Your task to perform on an android device: turn off location history Image 0: 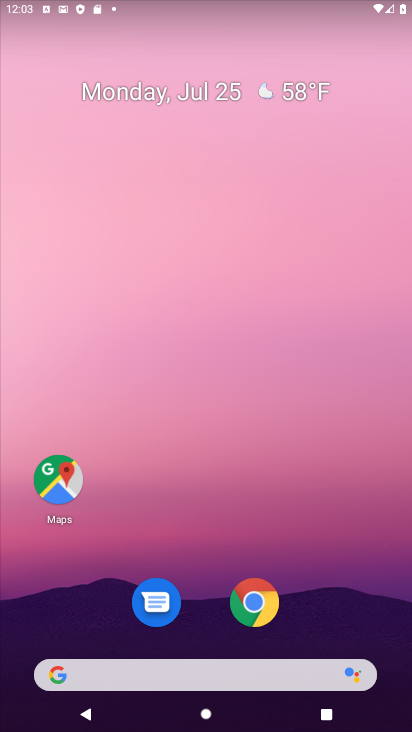
Step 0: drag from (186, 588) to (179, 200)
Your task to perform on an android device: turn off location history Image 1: 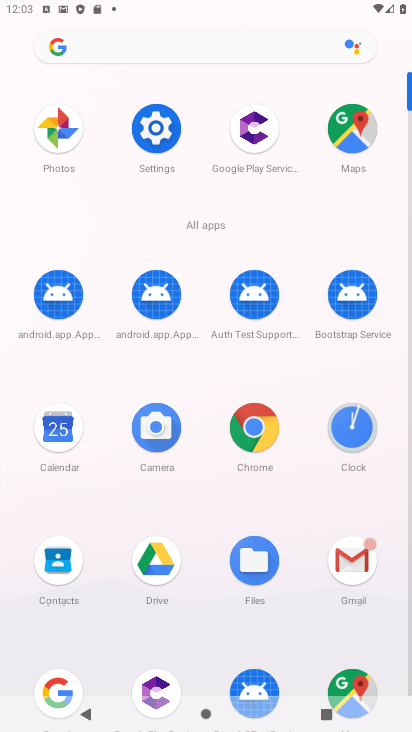
Step 1: click (170, 150)
Your task to perform on an android device: turn off location history Image 2: 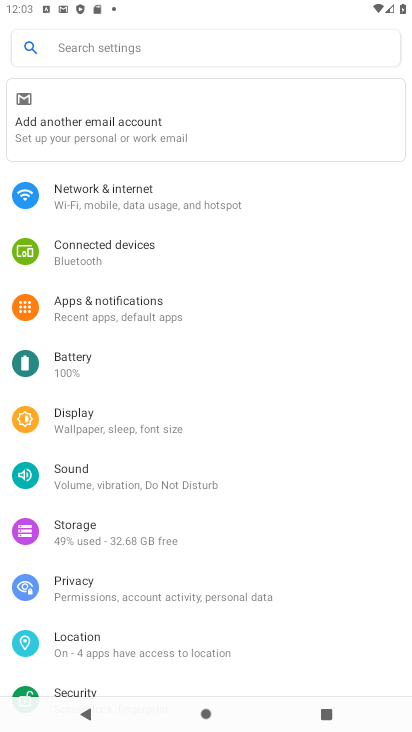
Step 2: drag from (144, 609) to (150, 293)
Your task to perform on an android device: turn off location history Image 3: 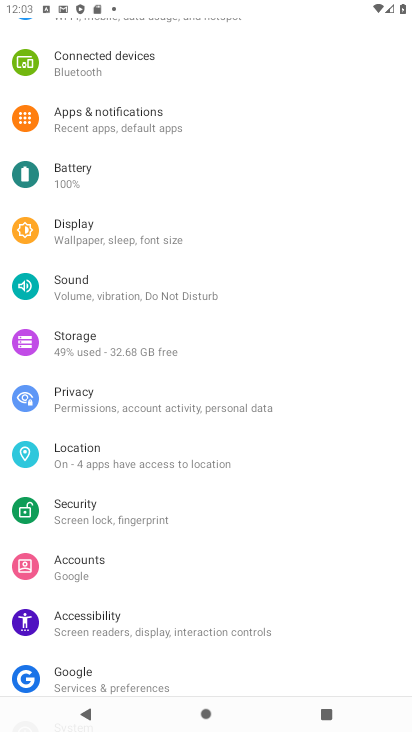
Step 3: click (102, 470)
Your task to perform on an android device: turn off location history Image 4: 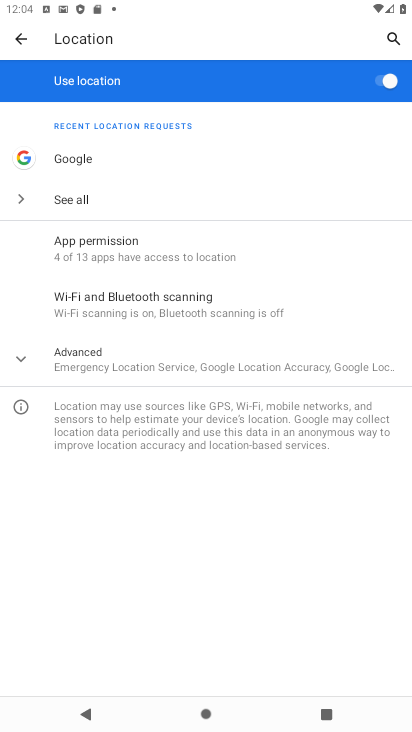
Step 4: click (197, 369)
Your task to perform on an android device: turn off location history Image 5: 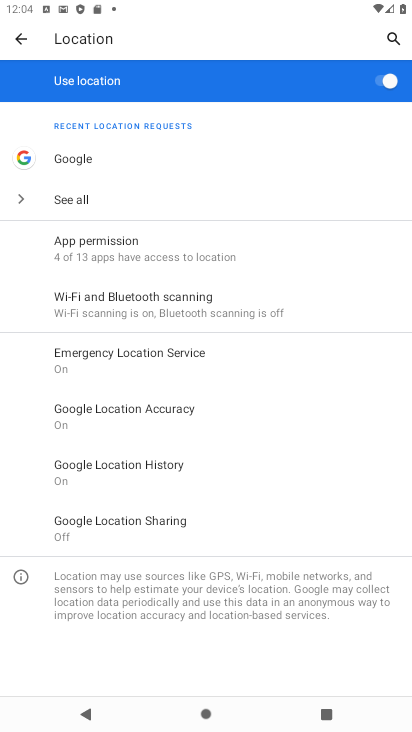
Step 5: click (146, 480)
Your task to perform on an android device: turn off location history Image 6: 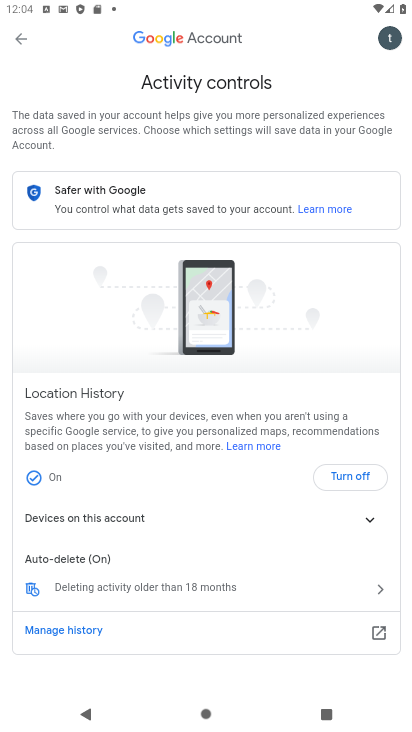
Step 6: click (326, 477)
Your task to perform on an android device: turn off location history Image 7: 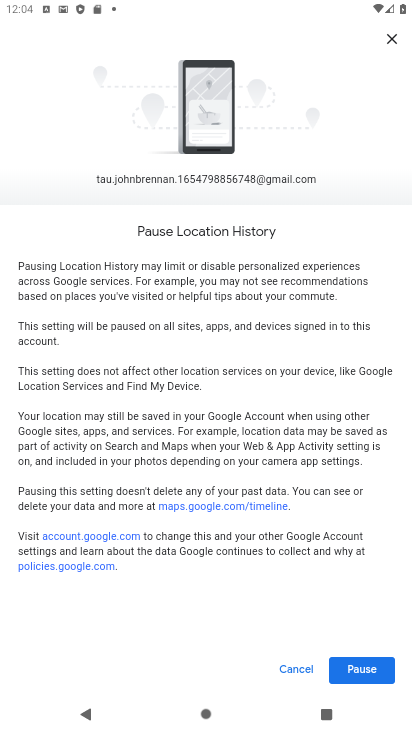
Step 7: click (370, 674)
Your task to perform on an android device: turn off location history Image 8: 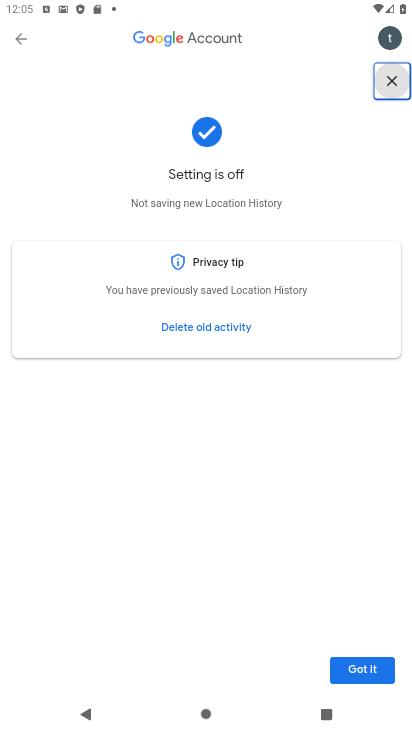
Step 8: click (371, 655)
Your task to perform on an android device: turn off location history Image 9: 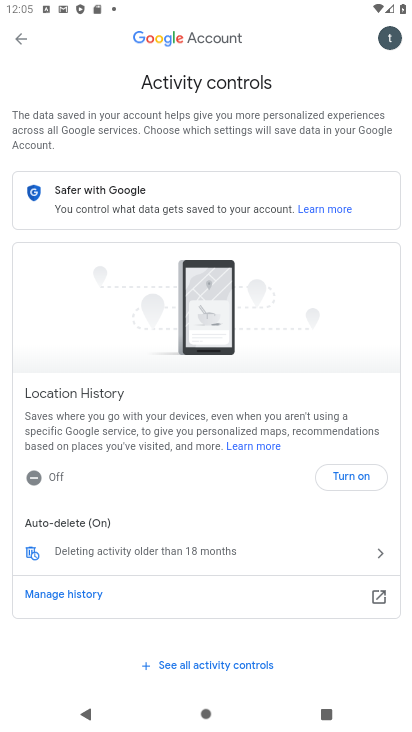
Step 9: task complete